Your task to perform on an android device: change notifications settings Image 0: 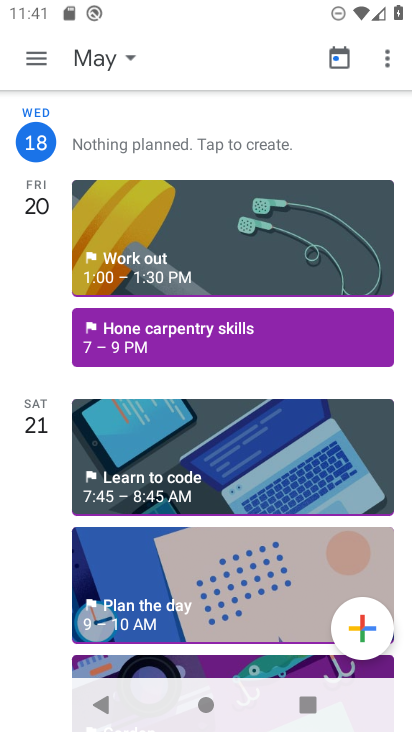
Step 0: press home button
Your task to perform on an android device: change notifications settings Image 1: 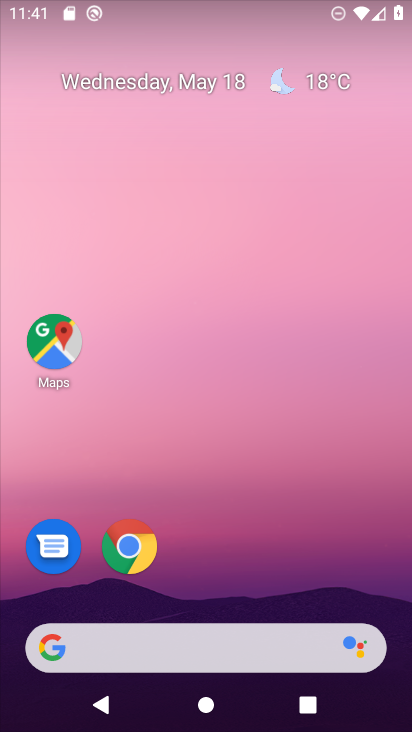
Step 1: drag from (228, 726) to (218, 169)
Your task to perform on an android device: change notifications settings Image 2: 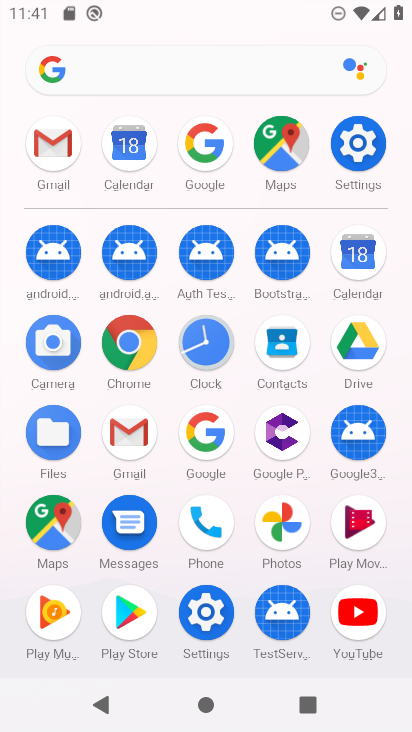
Step 2: click (357, 146)
Your task to perform on an android device: change notifications settings Image 3: 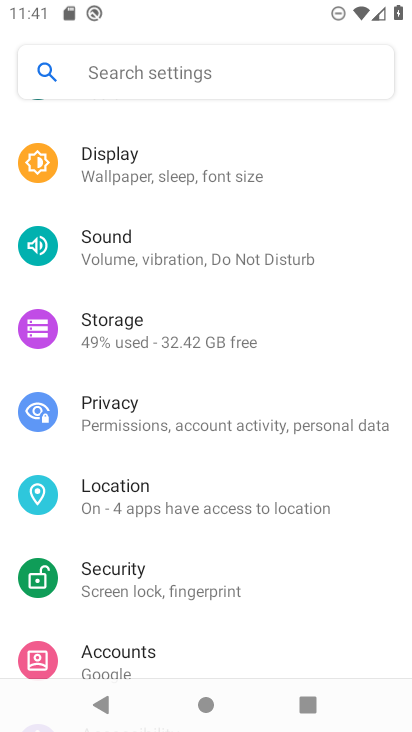
Step 3: drag from (158, 647) to (159, 318)
Your task to perform on an android device: change notifications settings Image 4: 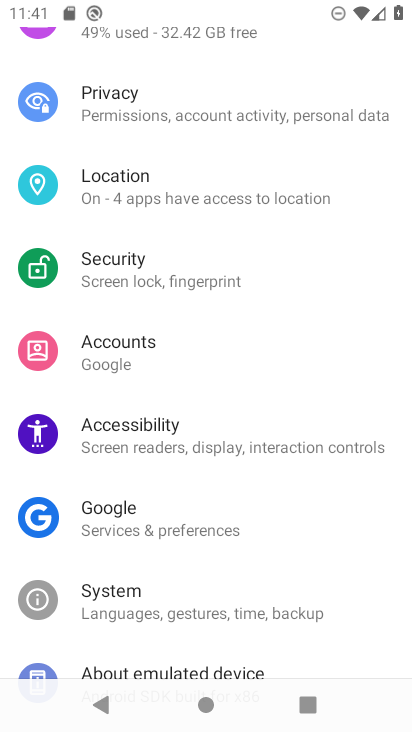
Step 4: drag from (221, 89) to (206, 527)
Your task to perform on an android device: change notifications settings Image 5: 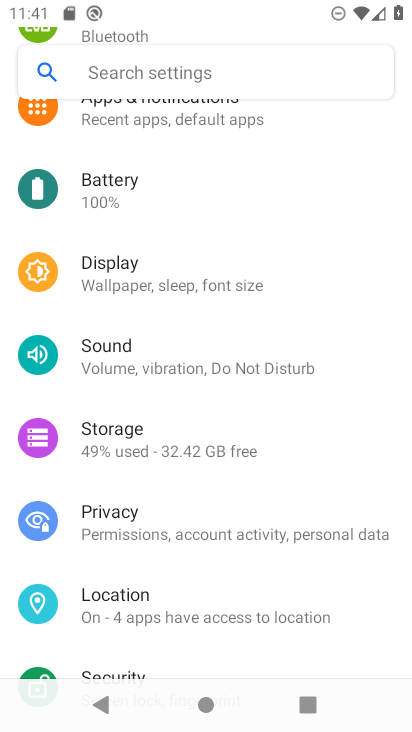
Step 5: drag from (210, 167) to (225, 499)
Your task to perform on an android device: change notifications settings Image 6: 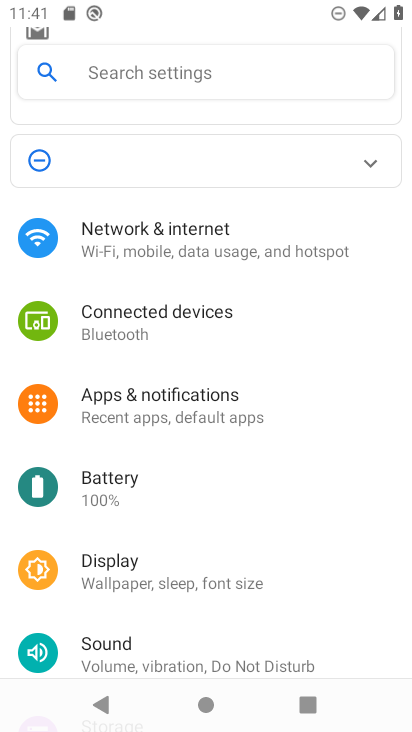
Step 6: click (122, 405)
Your task to perform on an android device: change notifications settings Image 7: 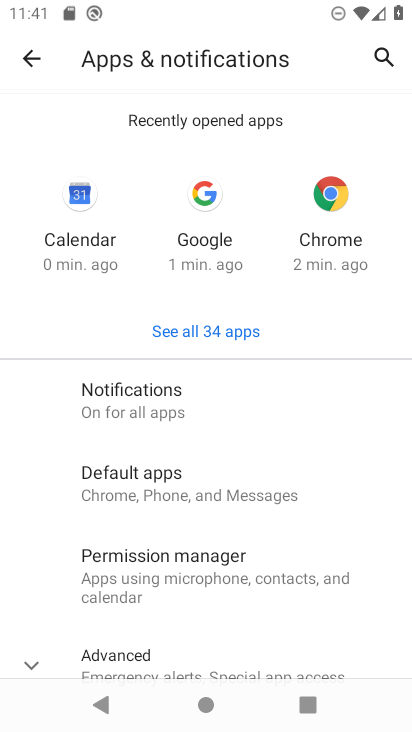
Step 7: click (123, 396)
Your task to perform on an android device: change notifications settings Image 8: 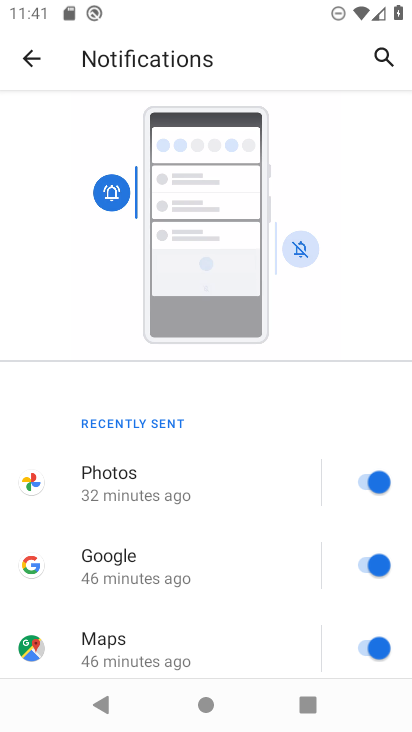
Step 8: drag from (234, 637) to (237, 402)
Your task to perform on an android device: change notifications settings Image 9: 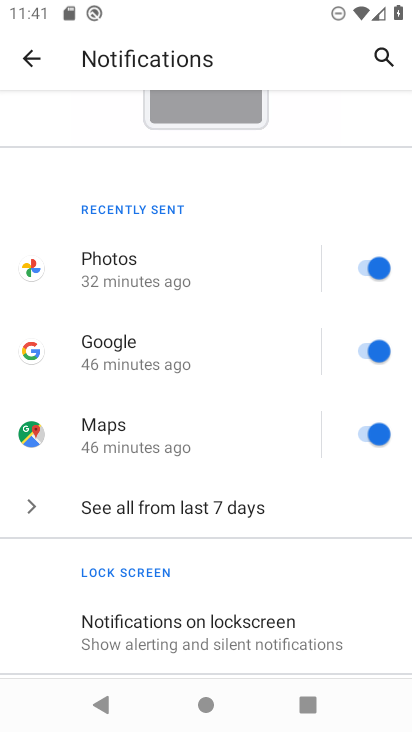
Step 9: drag from (187, 625) to (192, 355)
Your task to perform on an android device: change notifications settings Image 10: 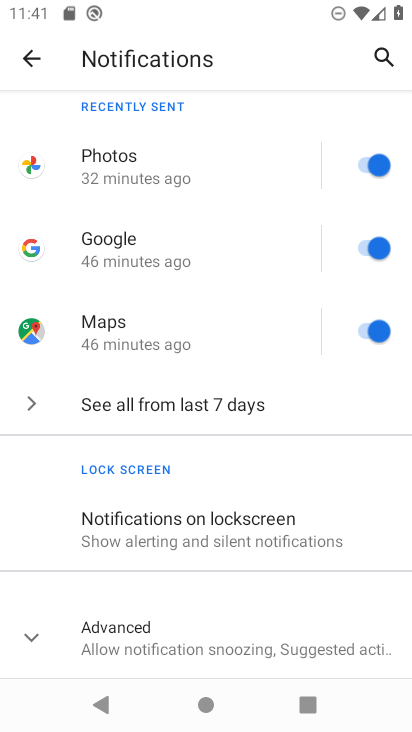
Step 10: click (160, 634)
Your task to perform on an android device: change notifications settings Image 11: 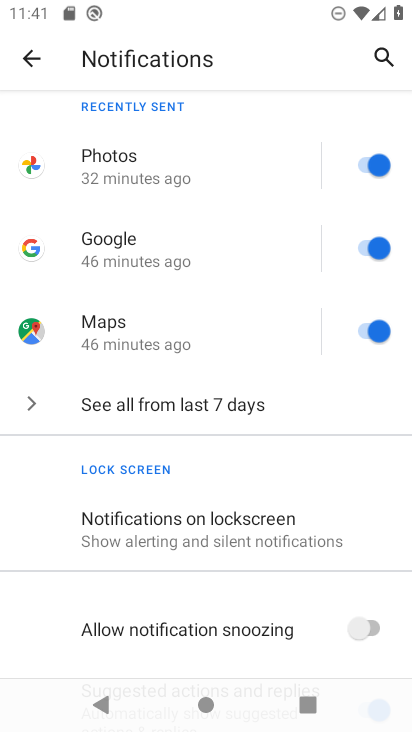
Step 11: click (376, 624)
Your task to perform on an android device: change notifications settings Image 12: 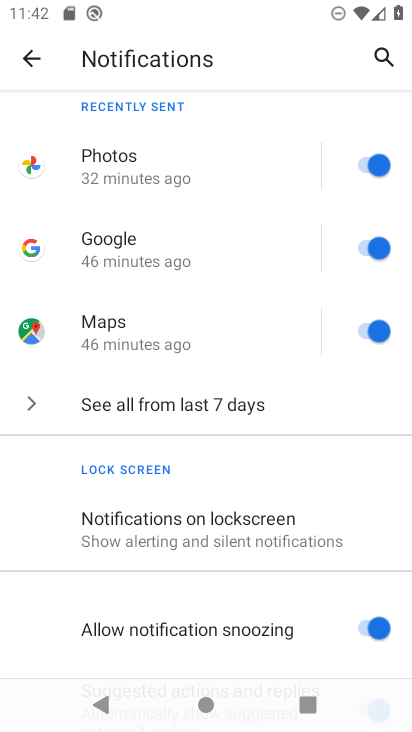
Step 12: task complete